Your task to perform on an android device: Open the calendar app, open the side menu, and click the "Day" option Image 0: 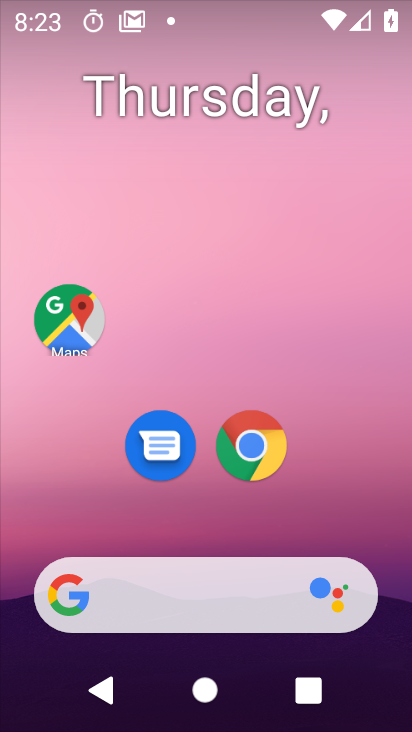
Step 0: drag from (57, 459) to (168, 180)
Your task to perform on an android device: Open the calendar app, open the side menu, and click the "Day" option Image 1: 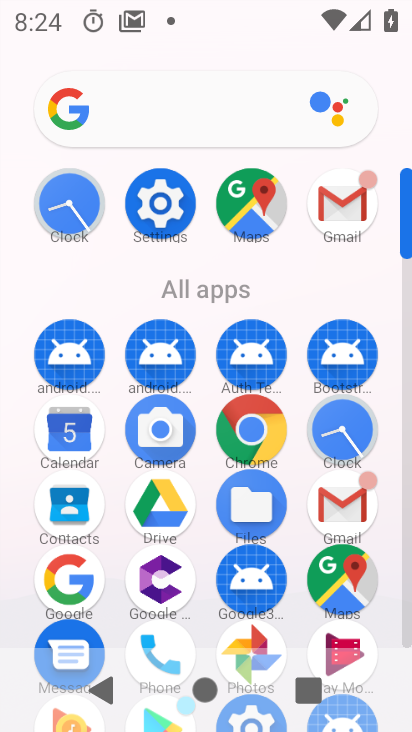
Step 1: click (69, 427)
Your task to perform on an android device: Open the calendar app, open the side menu, and click the "Day" option Image 2: 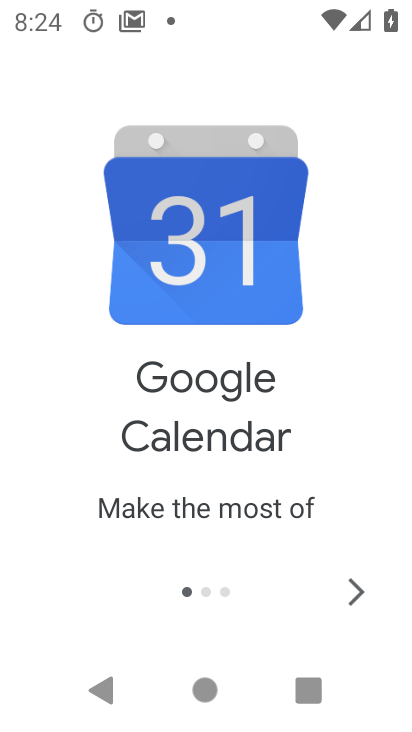
Step 2: click (356, 590)
Your task to perform on an android device: Open the calendar app, open the side menu, and click the "Day" option Image 3: 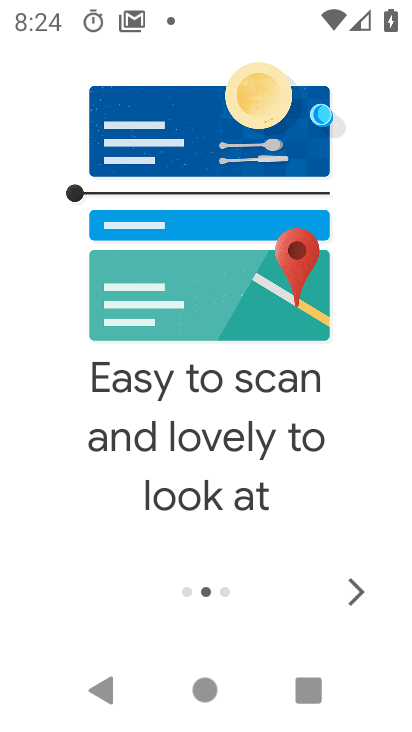
Step 3: click (356, 590)
Your task to perform on an android device: Open the calendar app, open the side menu, and click the "Day" option Image 4: 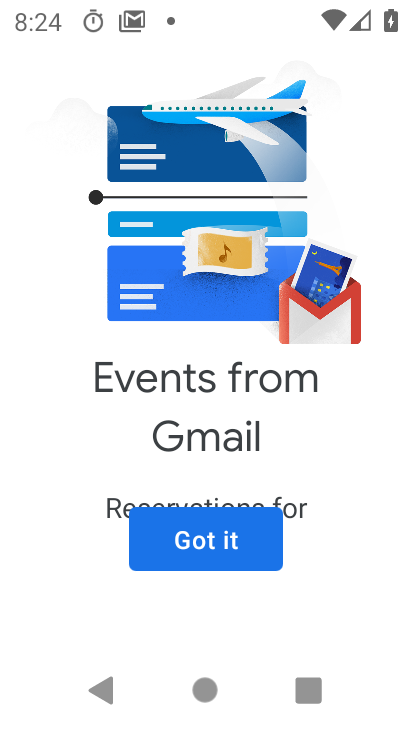
Step 4: click (245, 545)
Your task to perform on an android device: Open the calendar app, open the side menu, and click the "Day" option Image 5: 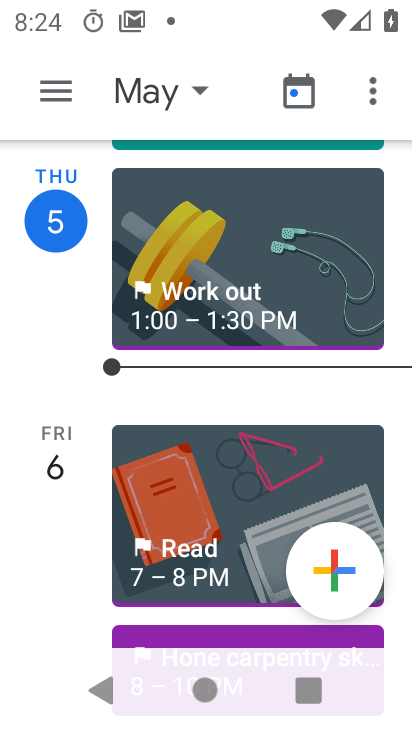
Step 5: click (44, 94)
Your task to perform on an android device: Open the calendar app, open the side menu, and click the "Day" option Image 6: 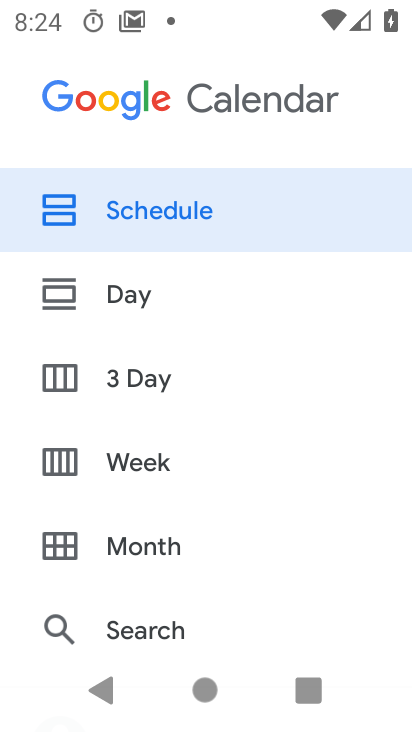
Step 6: click (119, 312)
Your task to perform on an android device: Open the calendar app, open the side menu, and click the "Day" option Image 7: 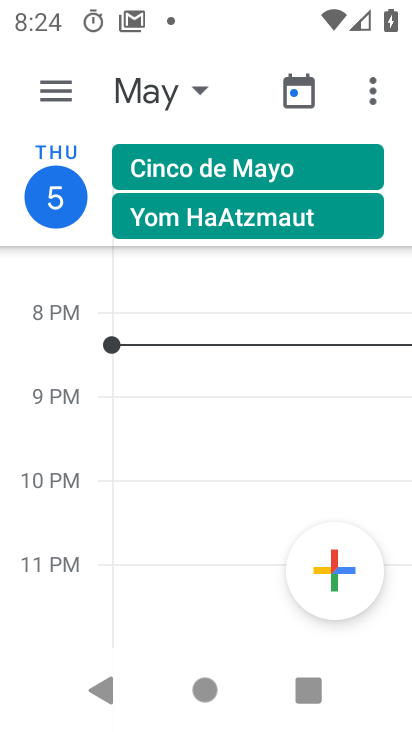
Step 7: task complete